Your task to perform on an android device: What's on my calendar today? Image 0: 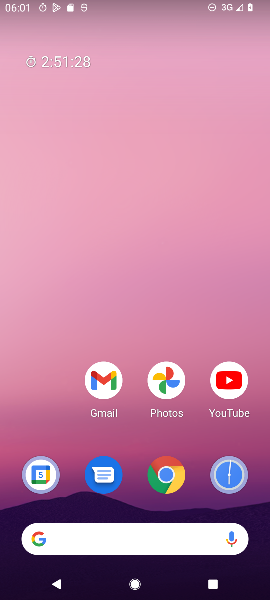
Step 0: press home button
Your task to perform on an android device: What's on my calendar today? Image 1: 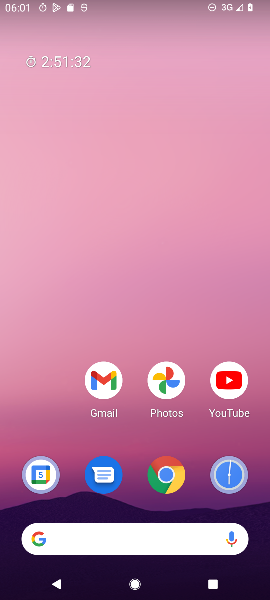
Step 1: drag from (57, 432) to (45, 216)
Your task to perform on an android device: What's on my calendar today? Image 2: 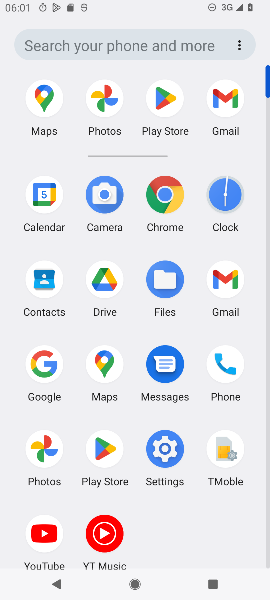
Step 2: click (46, 193)
Your task to perform on an android device: What's on my calendar today? Image 3: 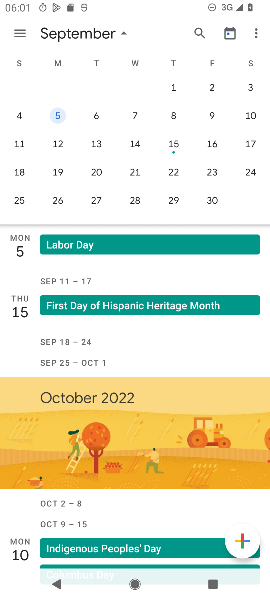
Step 3: drag from (140, 294) to (152, 105)
Your task to perform on an android device: What's on my calendar today? Image 4: 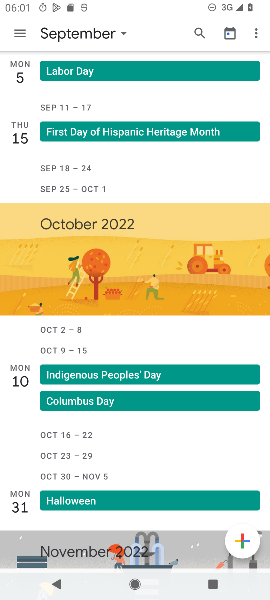
Step 4: drag from (145, 84) to (150, 222)
Your task to perform on an android device: What's on my calendar today? Image 5: 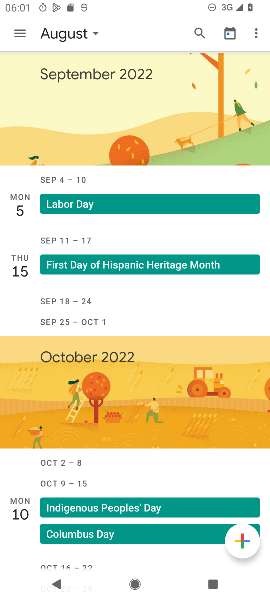
Step 5: drag from (128, 99) to (134, 254)
Your task to perform on an android device: What's on my calendar today? Image 6: 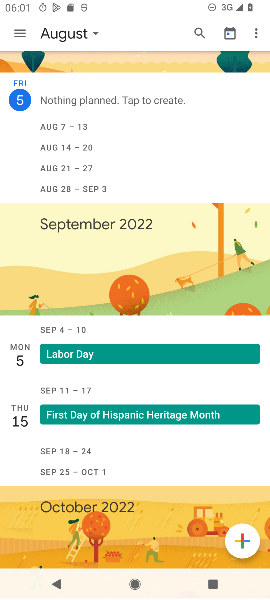
Step 6: click (93, 31)
Your task to perform on an android device: What's on my calendar today? Image 7: 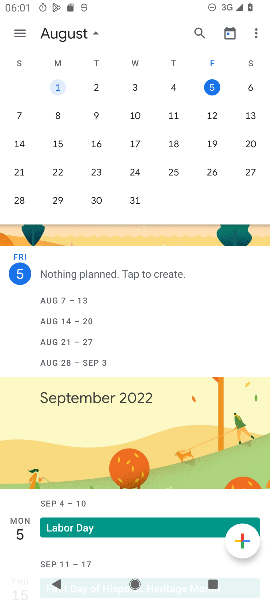
Step 7: task complete